Your task to perform on an android device: Open maps Image 0: 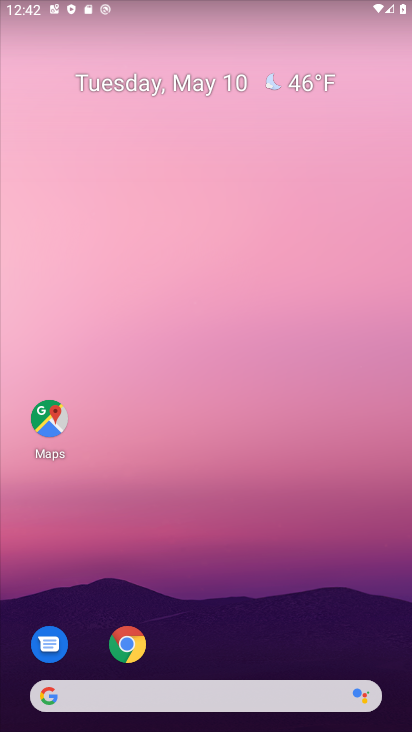
Step 0: drag from (227, 609) to (260, 200)
Your task to perform on an android device: Open maps Image 1: 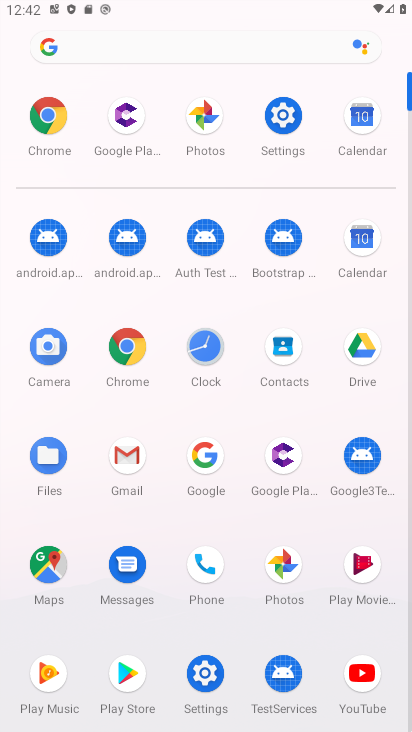
Step 1: click (30, 568)
Your task to perform on an android device: Open maps Image 2: 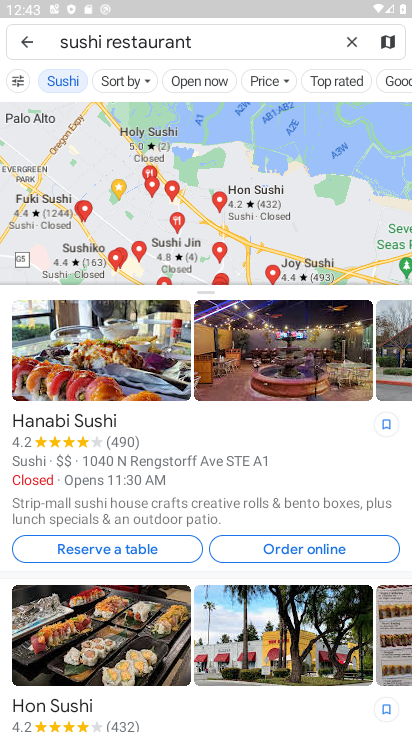
Step 2: task complete